Your task to perform on an android device: open chrome and create a bookmark for the current page Image 0: 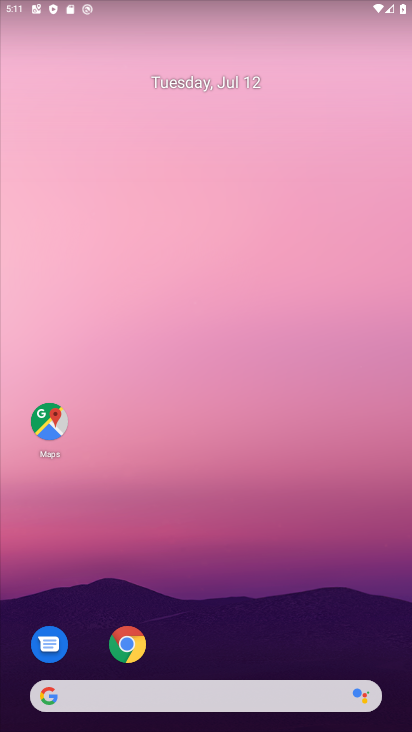
Step 0: press home button
Your task to perform on an android device: open chrome and create a bookmark for the current page Image 1: 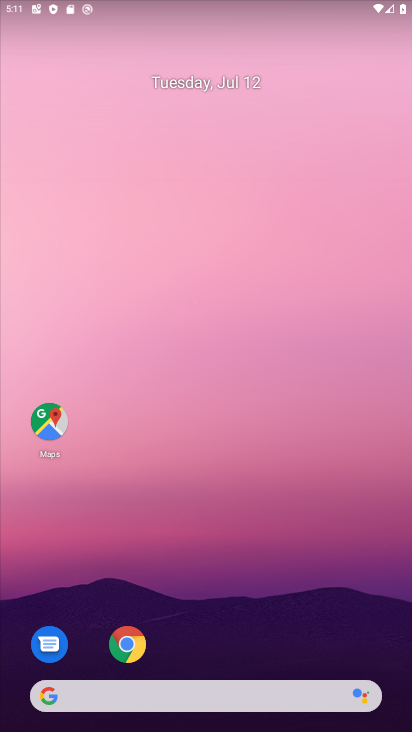
Step 1: drag from (255, 646) to (156, 67)
Your task to perform on an android device: open chrome and create a bookmark for the current page Image 2: 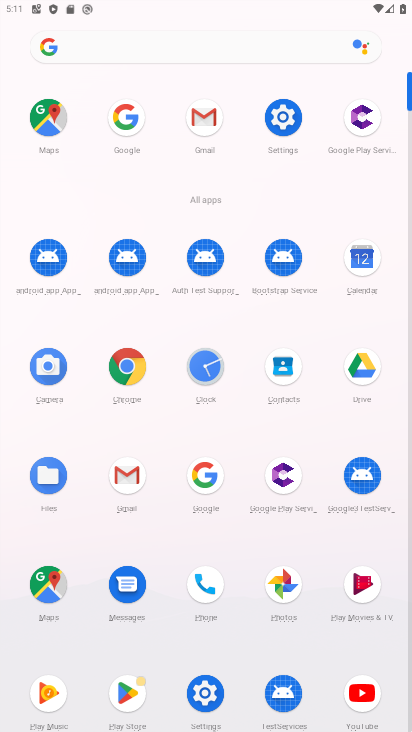
Step 2: click (135, 366)
Your task to perform on an android device: open chrome and create a bookmark for the current page Image 3: 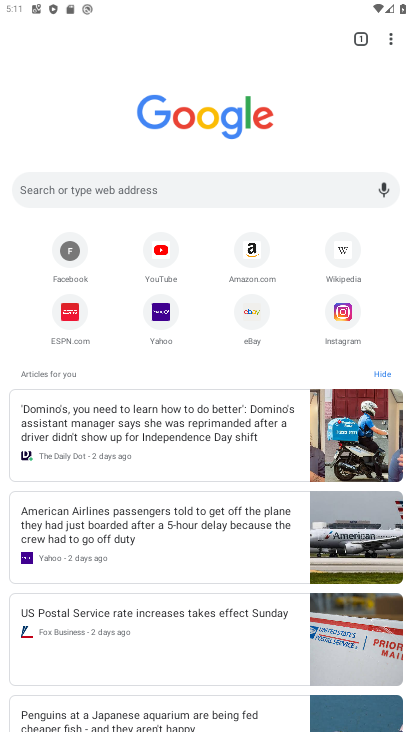
Step 3: drag from (394, 26) to (220, 143)
Your task to perform on an android device: open chrome and create a bookmark for the current page Image 4: 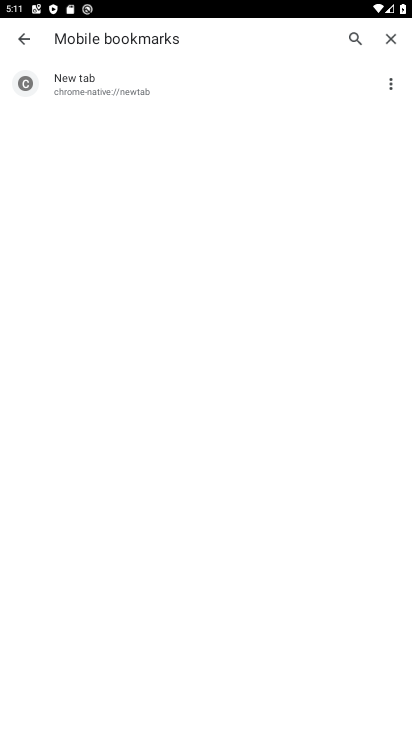
Step 4: click (25, 32)
Your task to perform on an android device: open chrome and create a bookmark for the current page Image 5: 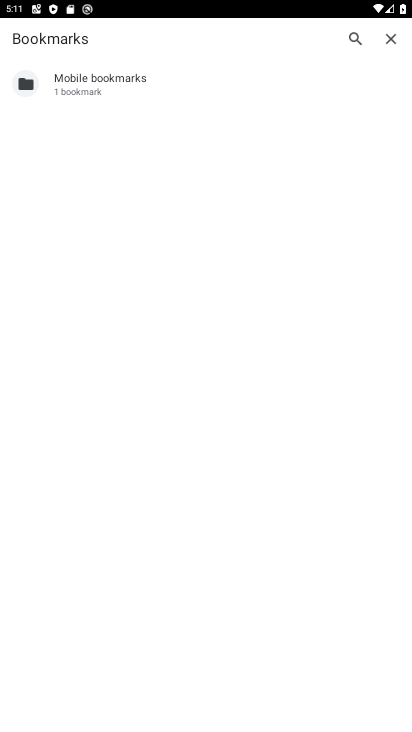
Step 5: click (390, 44)
Your task to perform on an android device: open chrome and create a bookmark for the current page Image 6: 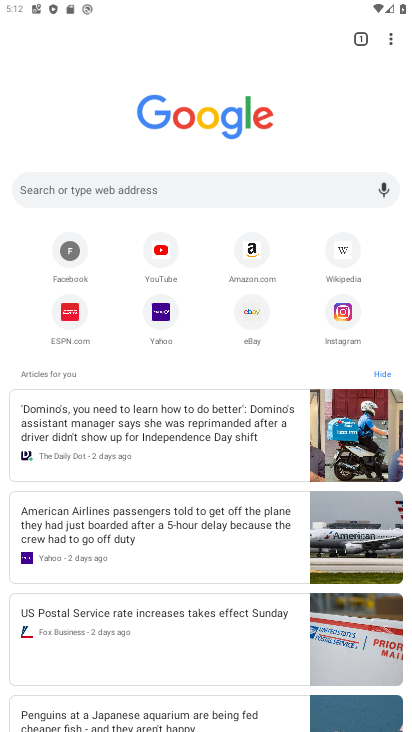
Step 6: click (269, 305)
Your task to perform on an android device: open chrome and create a bookmark for the current page Image 7: 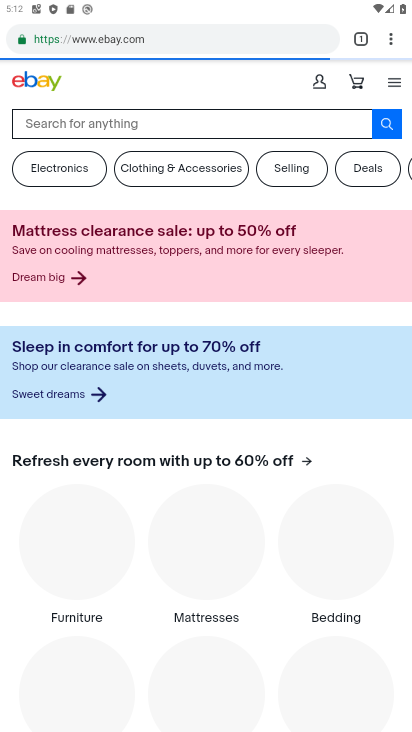
Step 7: task complete